Your task to perform on an android device: Is it going to rain tomorrow? Image 0: 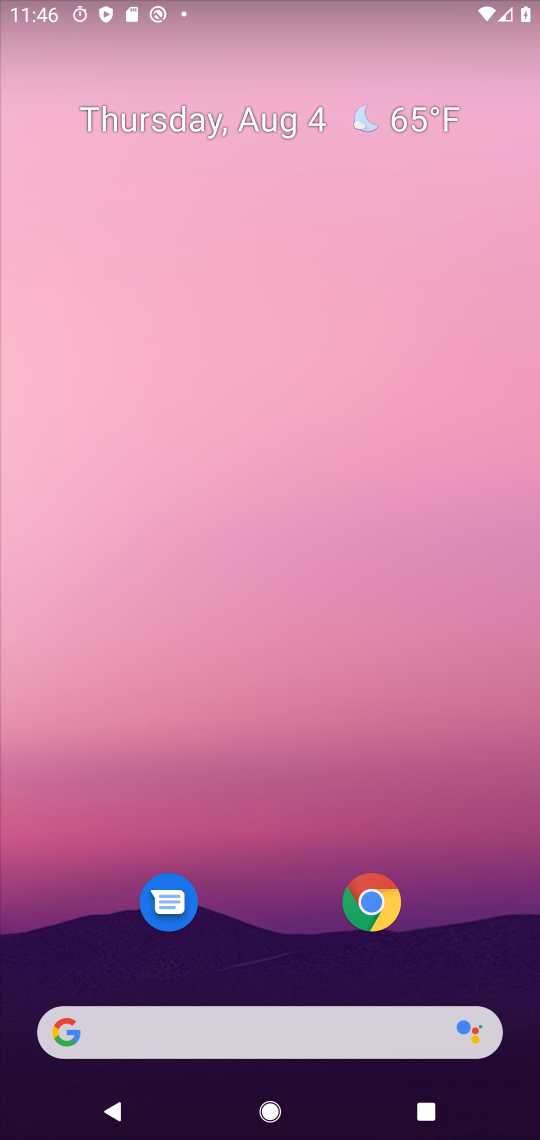
Step 0: click (325, 1033)
Your task to perform on an android device: Is it going to rain tomorrow? Image 1: 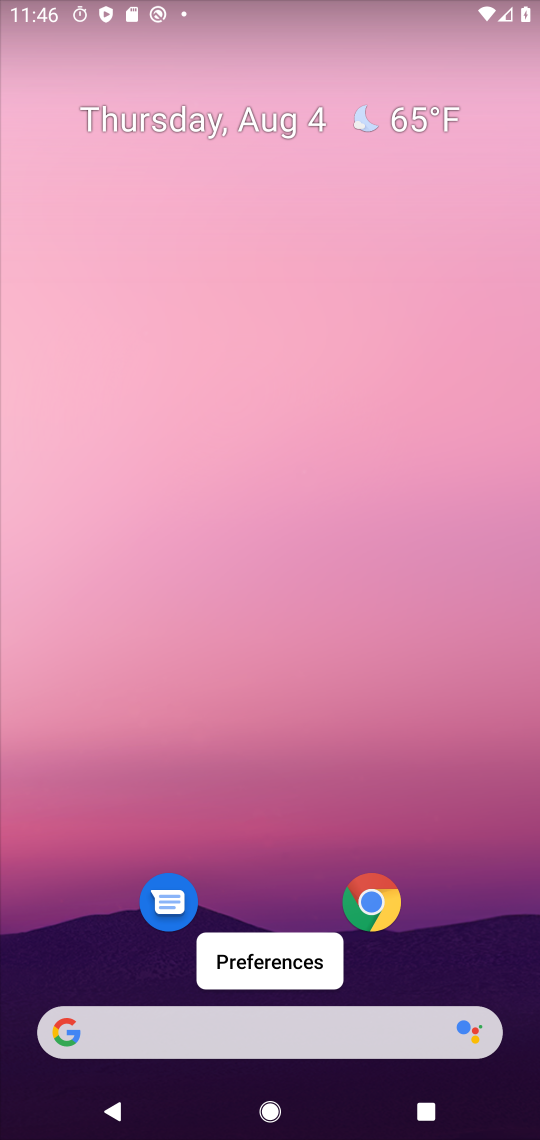
Step 1: drag from (302, 1056) to (241, 335)
Your task to perform on an android device: Is it going to rain tomorrow? Image 2: 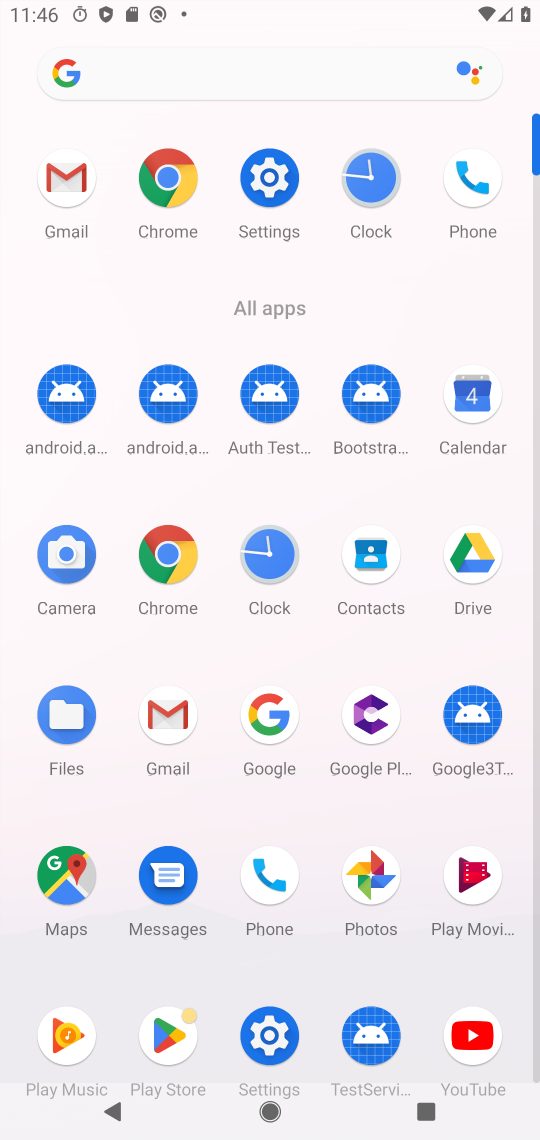
Step 2: click (165, 67)
Your task to perform on an android device: Is it going to rain tomorrow? Image 3: 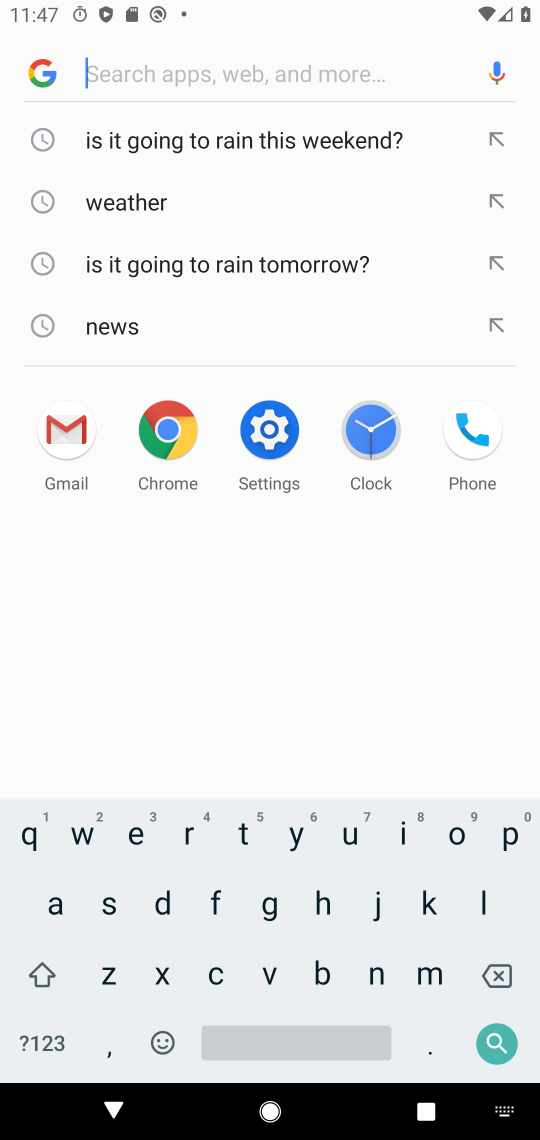
Step 3: click (182, 260)
Your task to perform on an android device: Is it going to rain tomorrow? Image 4: 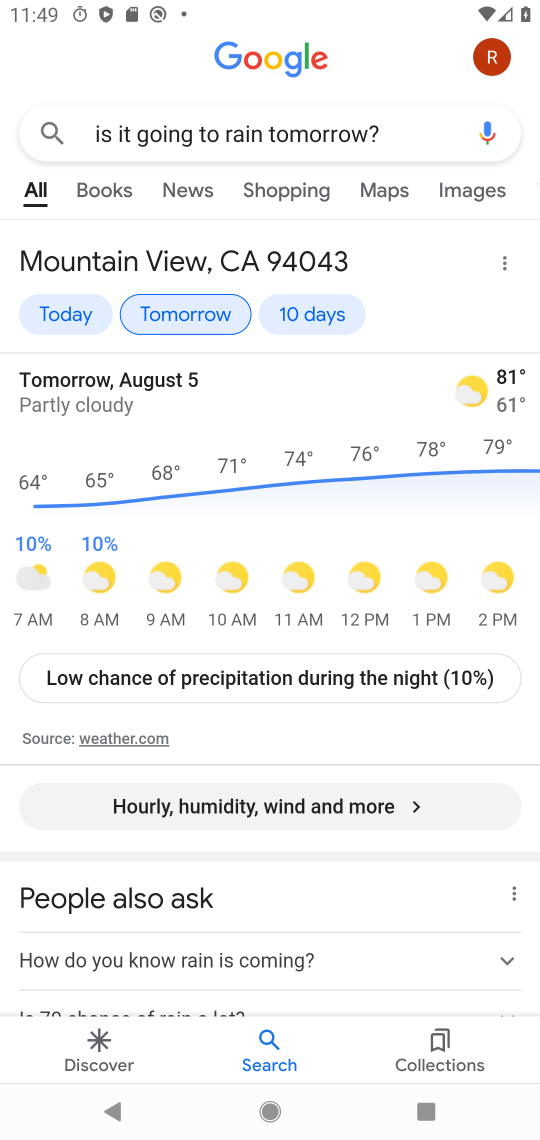
Step 4: task complete